Your task to perform on an android device: Open sound settings Image 0: 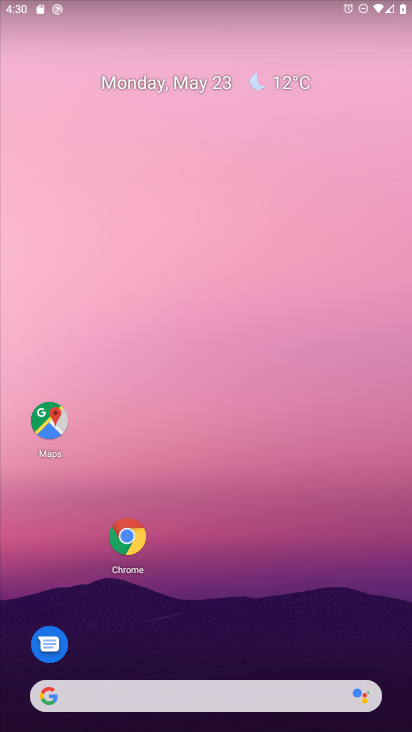
Step 0: drag from (237, 564) to (293, 196)
Your task to perform on an android device: Open sound settings Image 1: 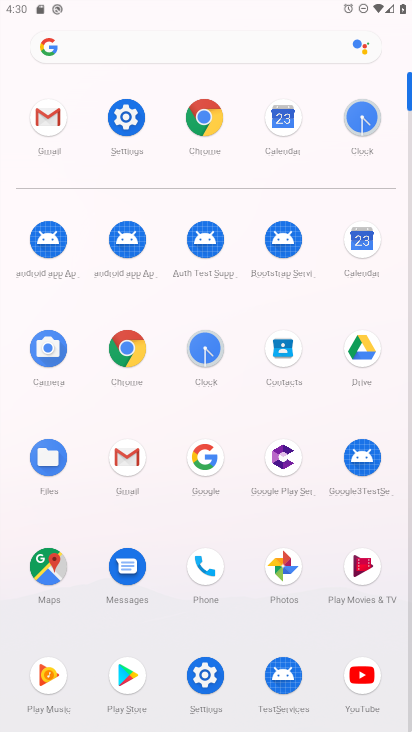
Step 1: click (128, 123)
Your task to perform on an android device: Open sound settings Image 2: 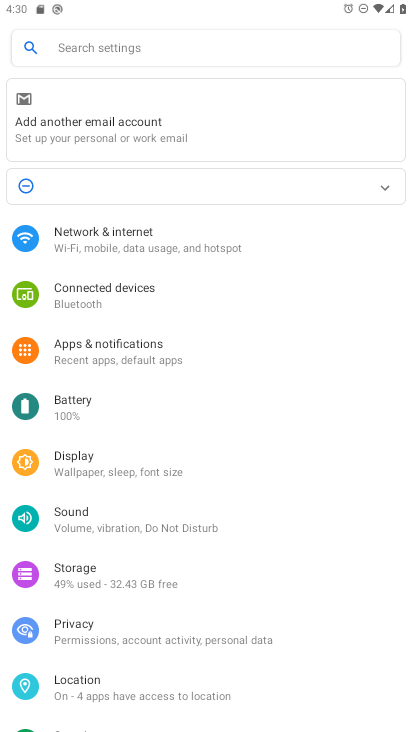
Step 2: drag from (168, 653) to (265, 307)
Your task to perform on an android device: Open sound settings Image 3: 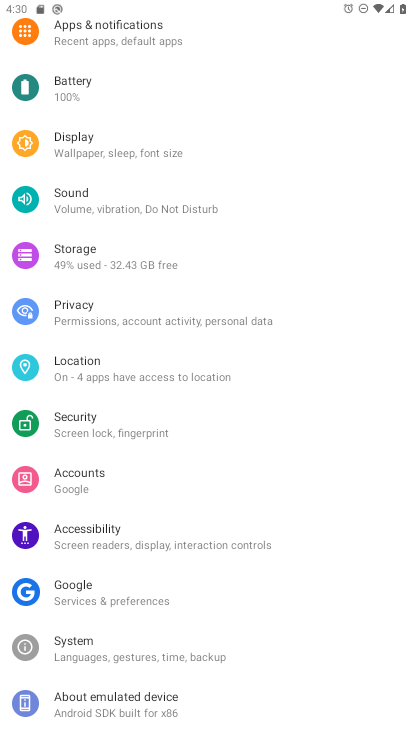
Step 3: drag from (164, 209) to (205, 433)
Your task to perform on an android device: Open sound settings Image 4: 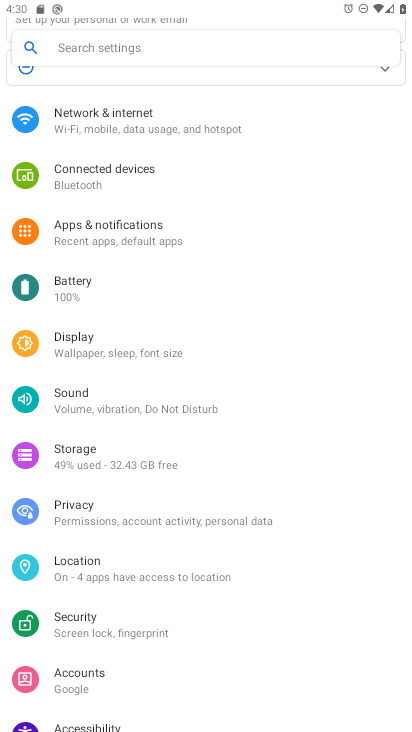
Step 4: click (127, 394)
Your task to perform on an android device: Open sound settings Image 5: 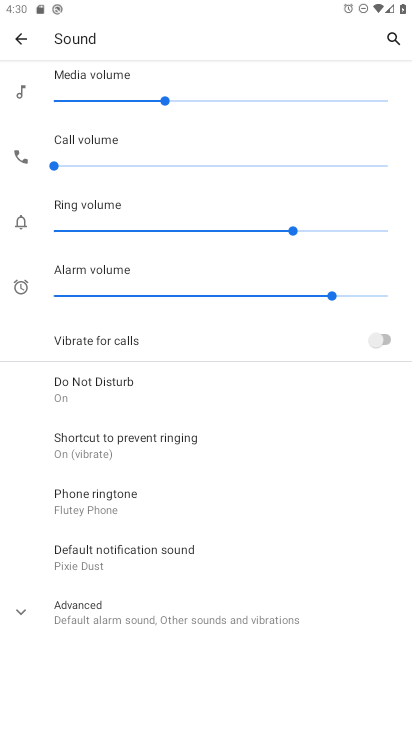
Step 5: task complete